Your task to perform on an android device: turn notification dots on Image 0: 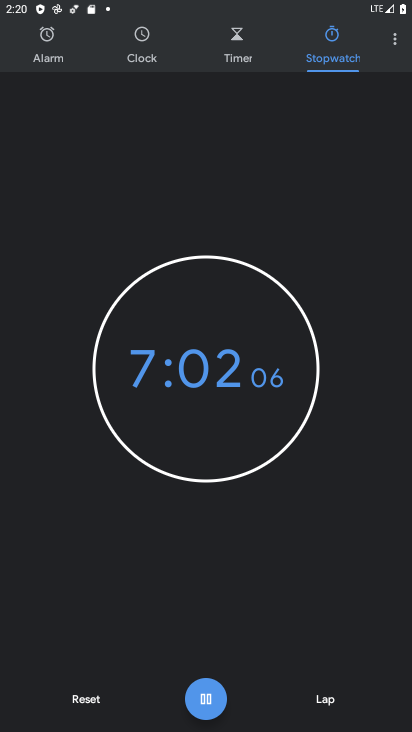
Step 0: press home button
Your task to perform on an android device: turn notification dots on Image 1: 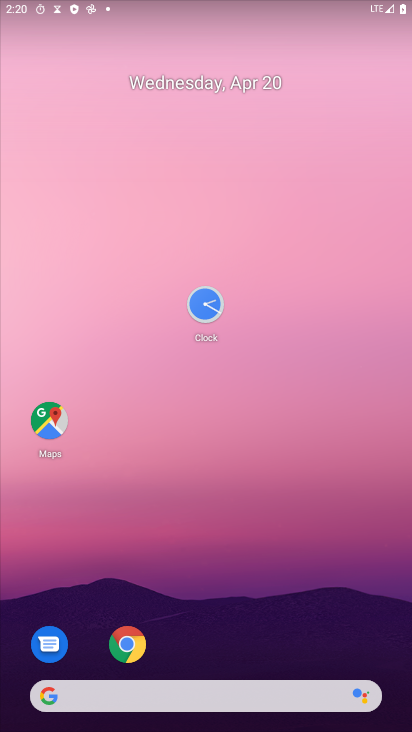
Step 1: drag from (349, 525) to (302, 4)
Your task to perform on an android device: turn notification dots on Image 2: 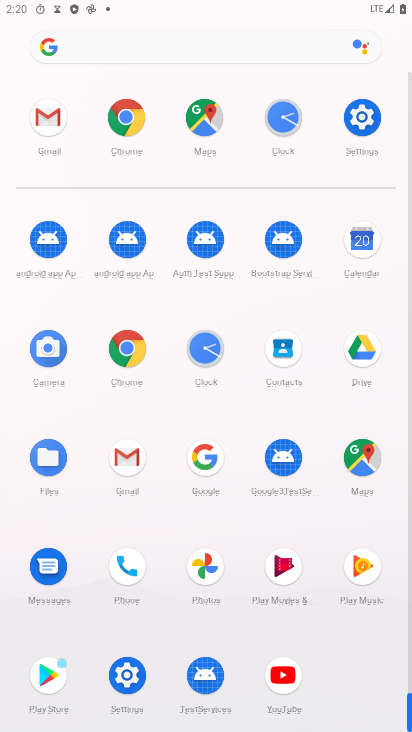
Step 2: click (130, 675)
Your task to perform on an android device: turn notification dots on Image 3: 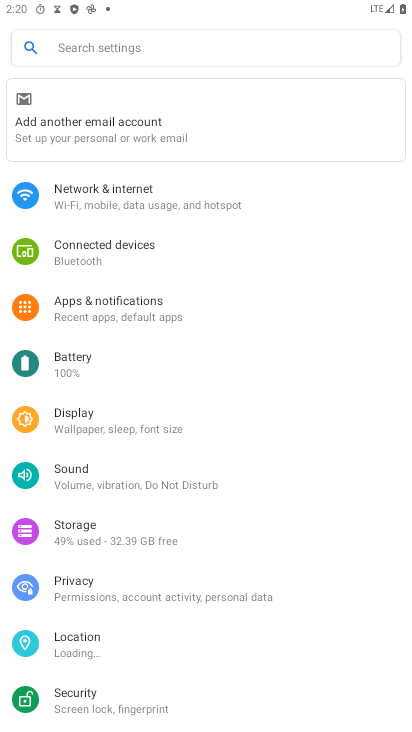
Step 3: click (150, 300)
Your task to perform on an android device: turn notification dots on Image 4: 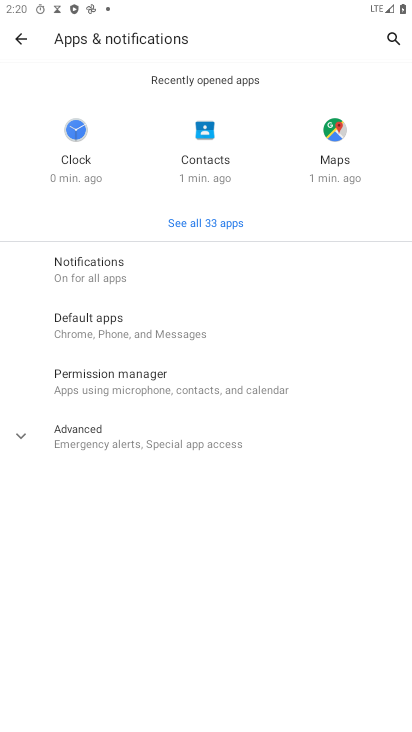
Step 4: click (153, 277)
Your task to perform on an android device: turn notification dots on Image 5: 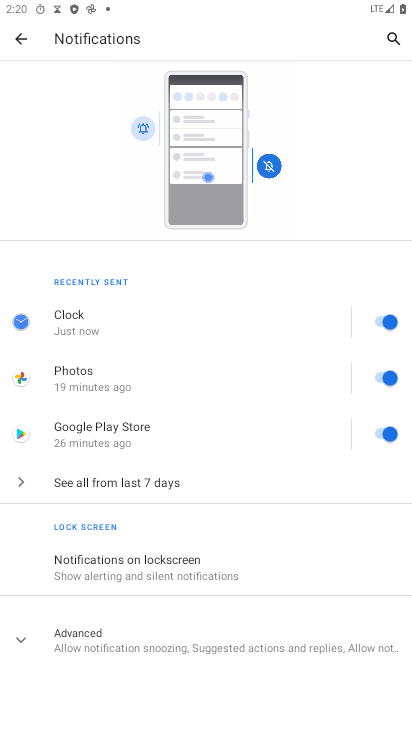
Step 5: drag from (238, 605) to (203, 283)
Your task to perform on an android device: turn notification dots on Image 6: 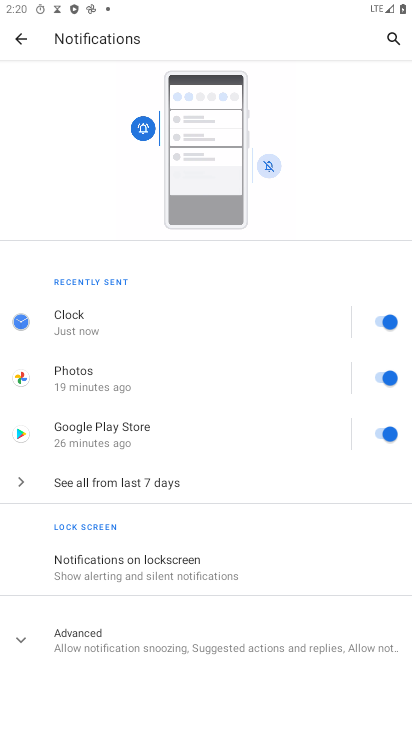
Step 6: click (184, 639)
Your task to perform on an android device: turn notification dots on Image 7: 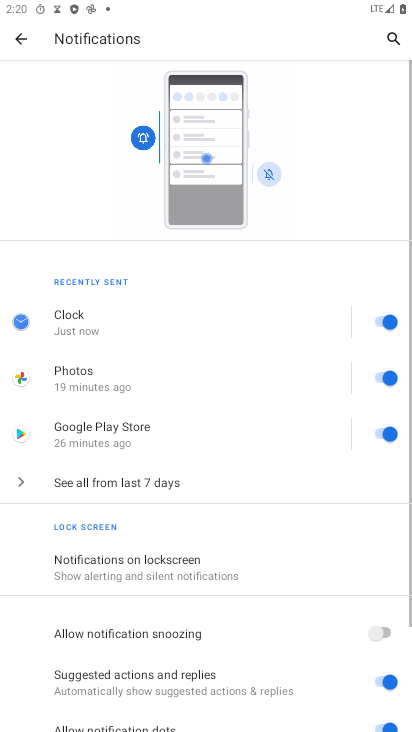
Step 7: task complete